Your task to perform on an android device: Search for Italian restaurants on Maps Image 0: 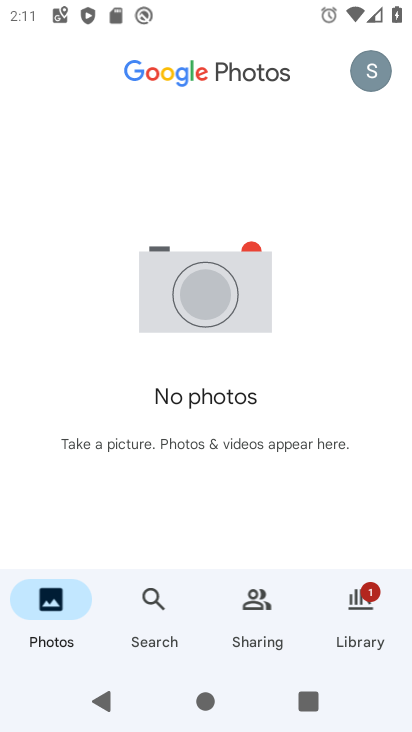
Step 0: press home button
Your task to perform on an android device: Search for Italian restaurants on Maps Image 1: 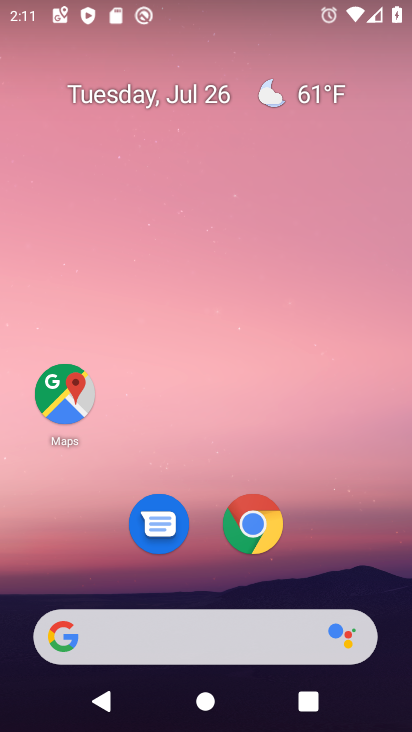
Step 1: click (62, 398)
Your task to perform on an android device: Search for Italian restaurants on Maps Image 2: 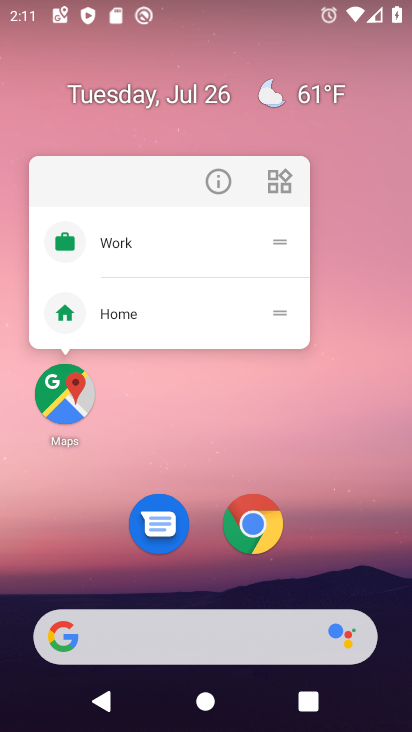
Step 2: click (62, 398)
Your task to perform on an android device: Search for Italian restaurants on Maps Image 3: 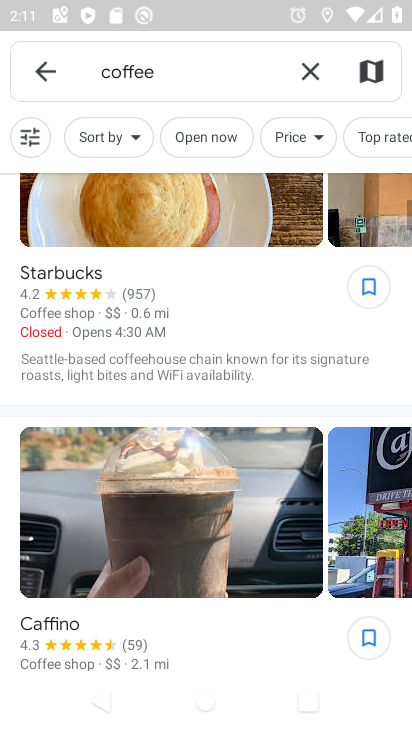
Step 3: click (311, 69)
Your task to perform on an android device: Search for Italian restaurants on Maps Image 4: 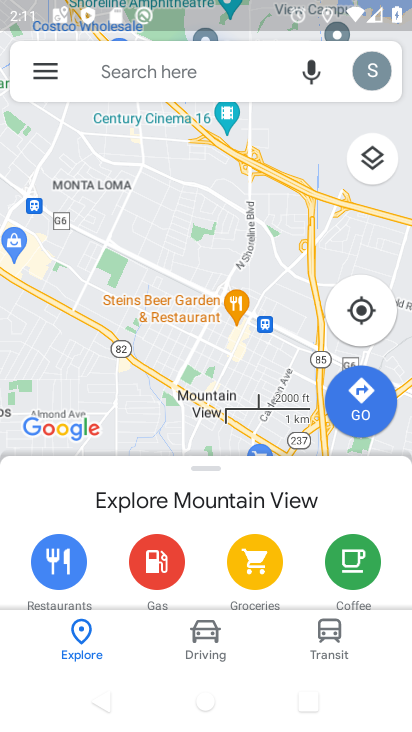
Step 4: click (170, 64)
Your task to perform on an android device: Search for Italian restaurants on Maps Image 5: 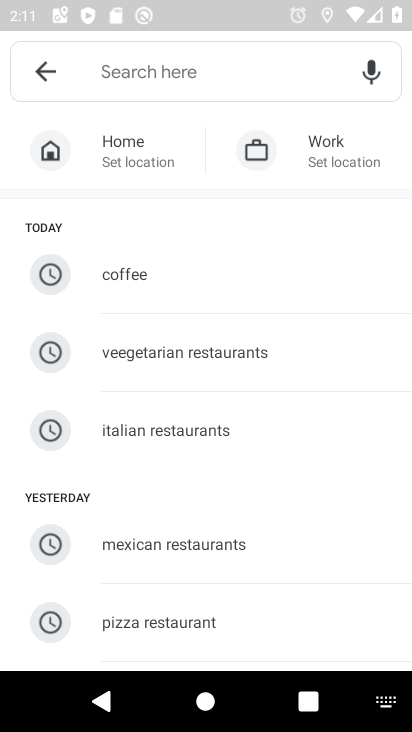
Step 5: click (193, 433)
Your task to perform on an android device: Search for Italian restaurants on Maps Image 6: 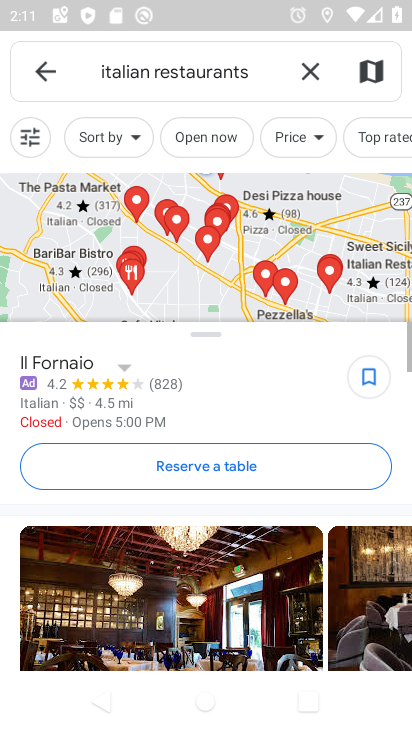
Step 6: task complete